Your task to perform on an android device: Go to calendar. Show me events next week Image 0: 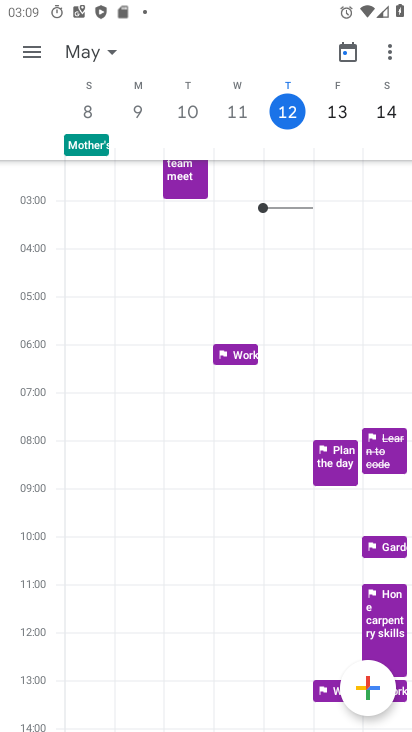
Step 0: drag from (373, 322) to (14, 302)
Your task to perform on an android device: Go to calendar. Show me events next week Image 1: 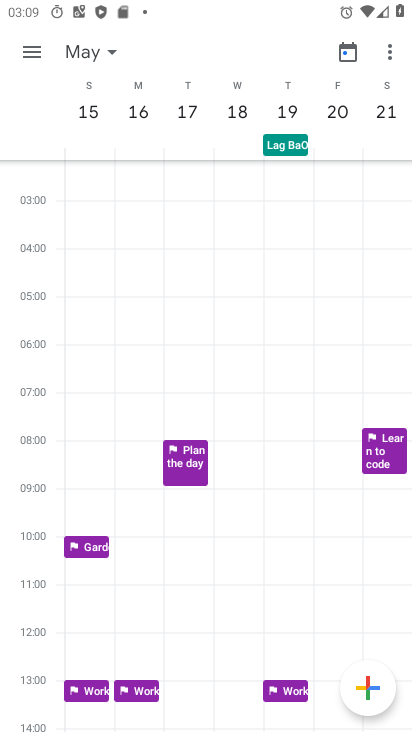
Step 1: task complete